Your task to perform on an android device: delete location history Image 0: 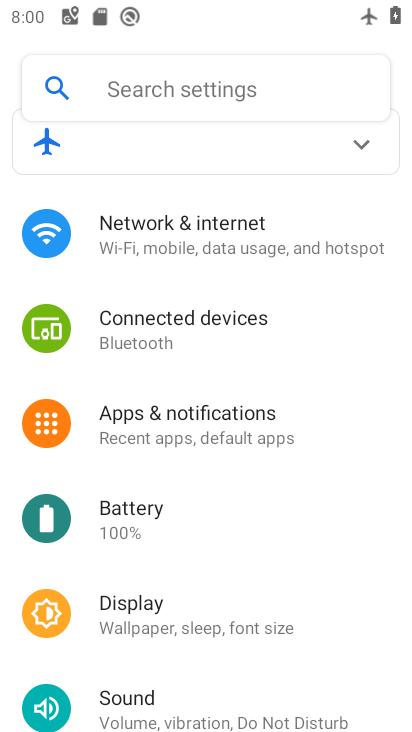
Step 0: drag from (237, 589) to (253, 274)
Your task to perform on an android device: delete location history Image 1: 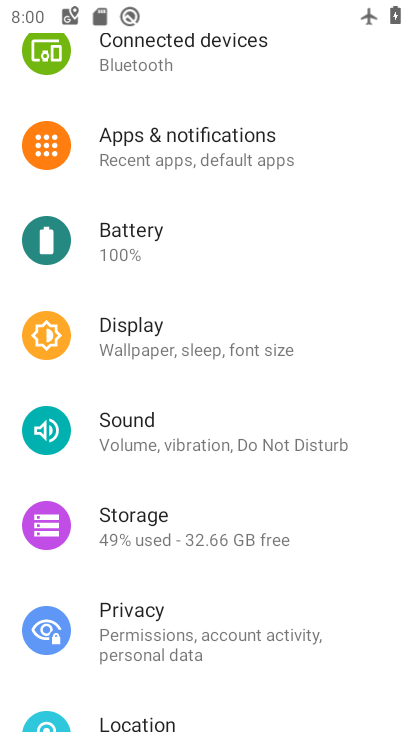
Step 1: press home button
Your task to perform on an android device: delete location history Image 2: 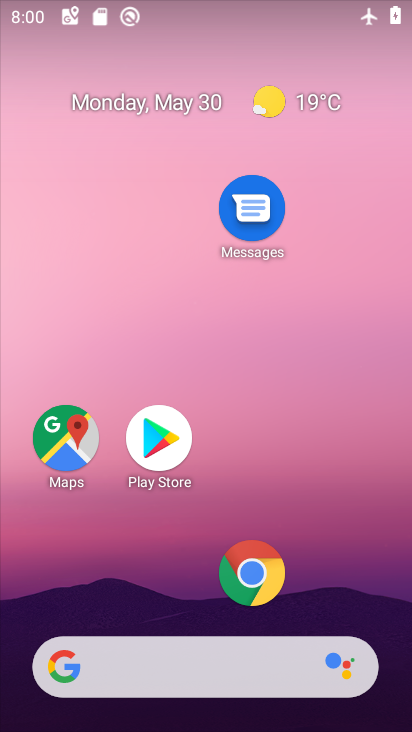
Step 2: drag from (160, 579) to (253, 189)
Your task to perform on an android device: delete location history Image 3: 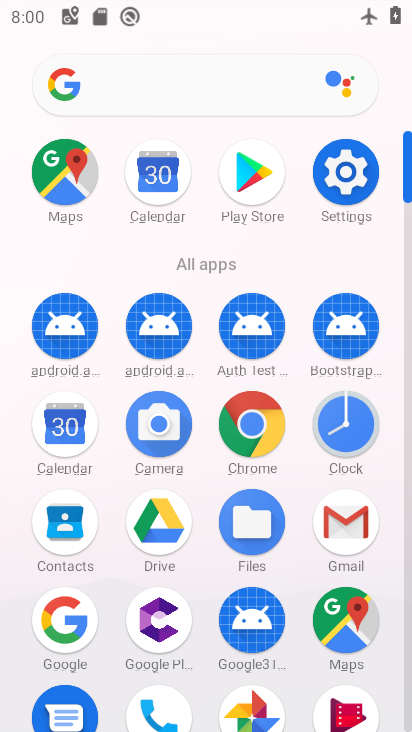
Step 3: click (328, 621)
Your task to perform on an android device: delete location history Image 4: 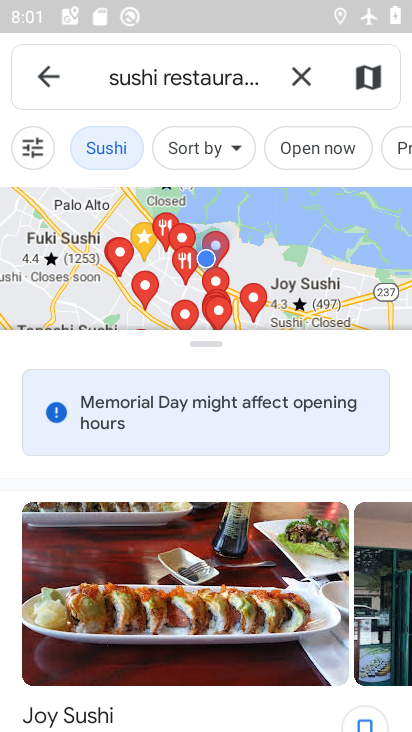
Step 4: click (43, 66)
Your task to perform on an android device: delete location history Image 5: 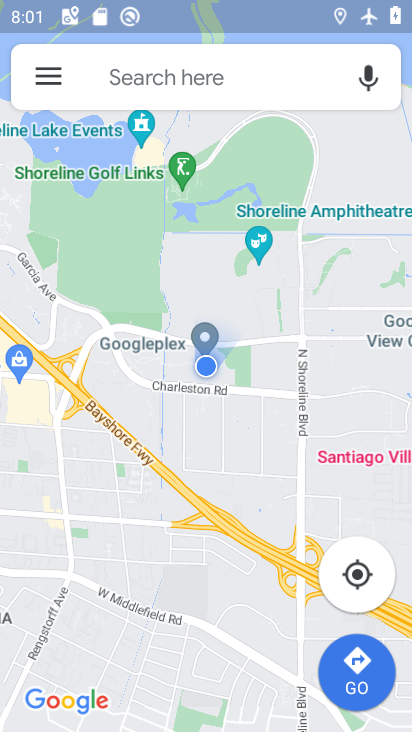
Step 5: click (50, 81)
Your task to perform on an android device: delete location history Image 6: 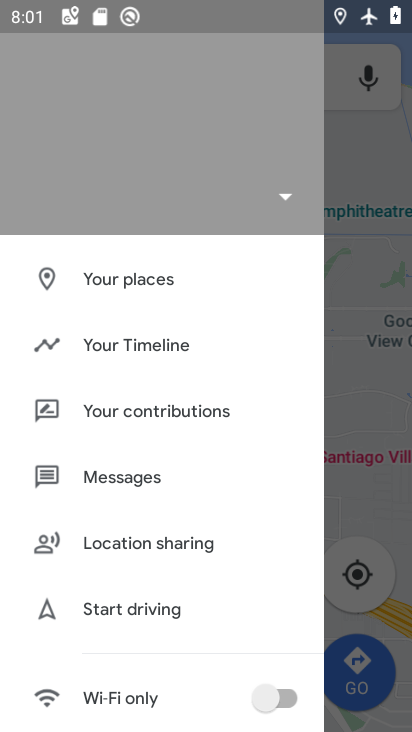
Step 6: click (129, 344)
Your task to perform on an android device: delete location history Image 7: 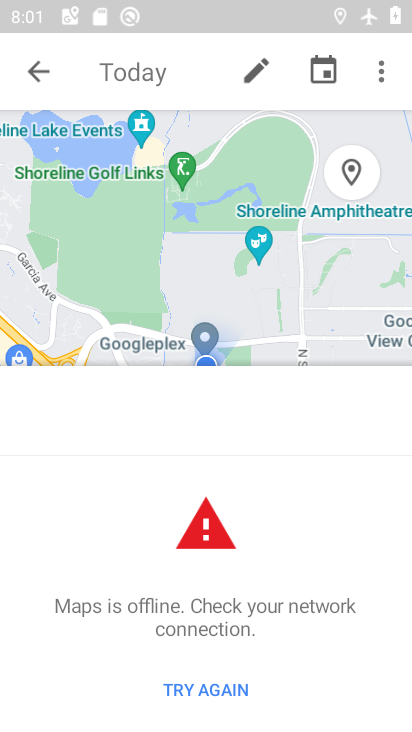
Step 7: task complete